Your task to perform on an android device: Find coffee shops on Maps Image 0: 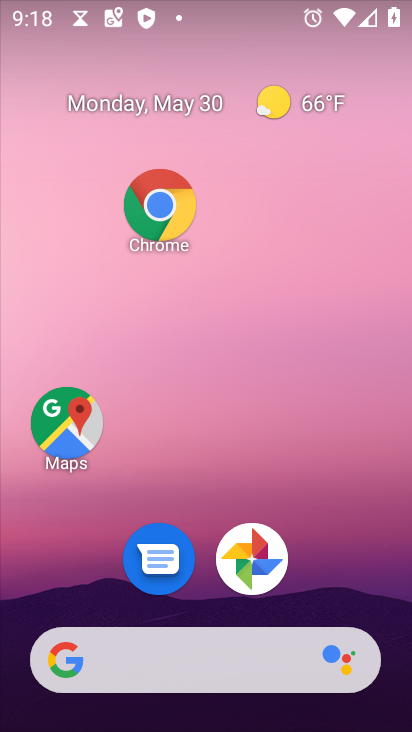
Step 0: drag from (269, 705) to (162, 51)
Your task to perform on an android device: Find coffee shops on Maps Image 1: 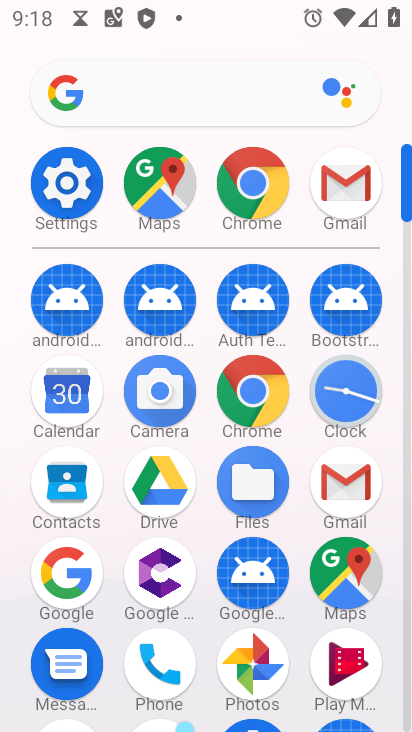
Step 1: click (340, 564)
Your task to perform on an android device: Find coffee shops on Maps Image 2: 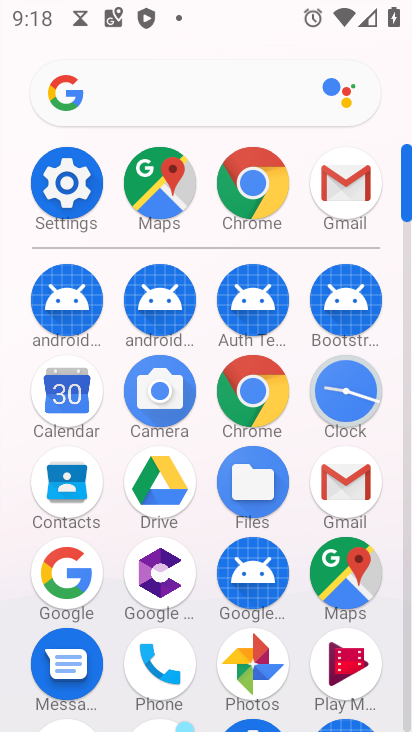
Step 2: click (341, 565)
Your task to perform on an android device: Find coffee shops on Maps Image 3: 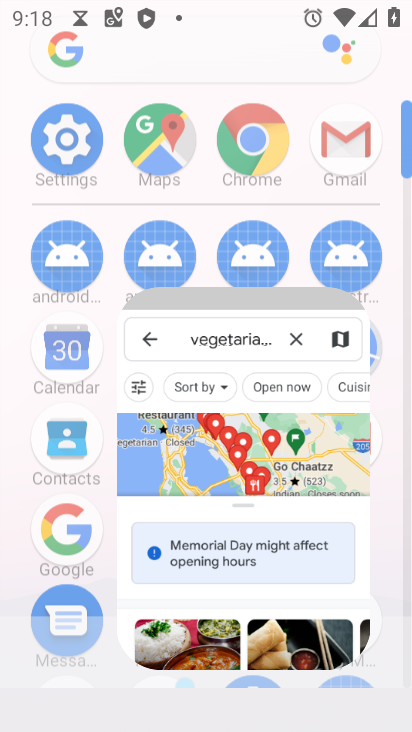
Step 3: click (341, 565)
Your task to perform on an android device: Find coffee shops on Maps Image 4: 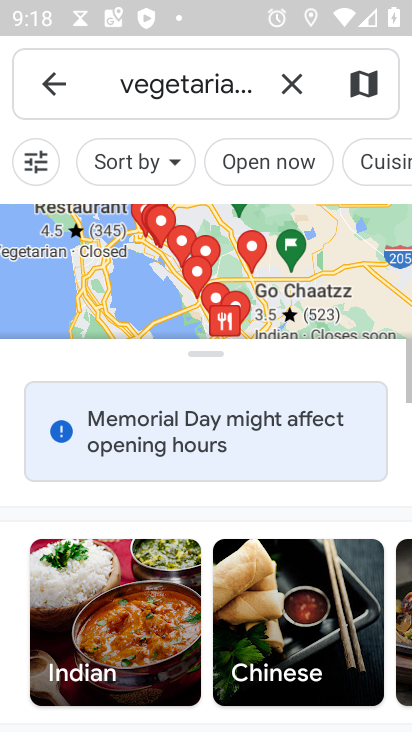
Step 4: click (293, 85)
Your task to perform on an android device: Find coffee shops on Maps Image 5: 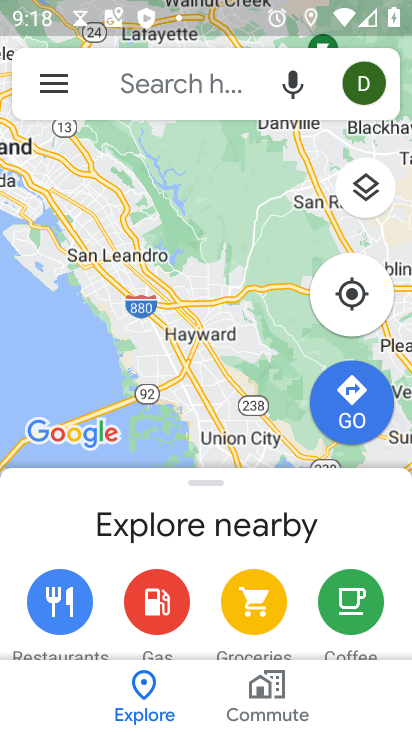
Step 5: click (122, 86)
Your task to perform on an android device: Find coffee shops on Maps Image 6: 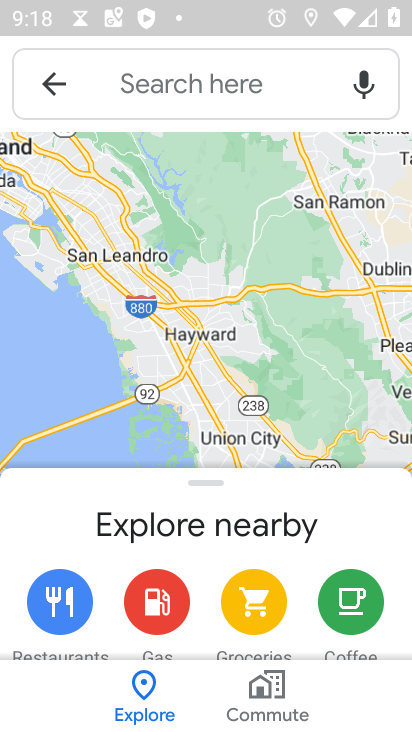
Step 6: click (122, 85)
Your task to perform on an android device: Find coffee shops on Maps Image 7: 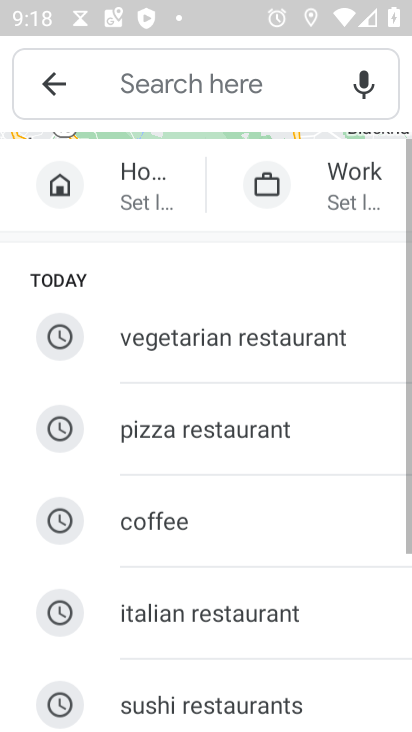
Step 7: click (122, 85)
Your task to perform on an android device: Find coffee shops on Maps Image 8: 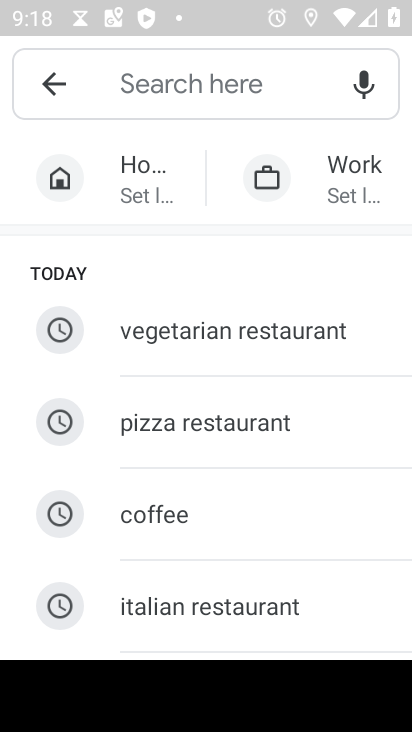
Step 8: click (161, 510)
Your task to perform on an android device: Find coffee shops on Maps Image 9: 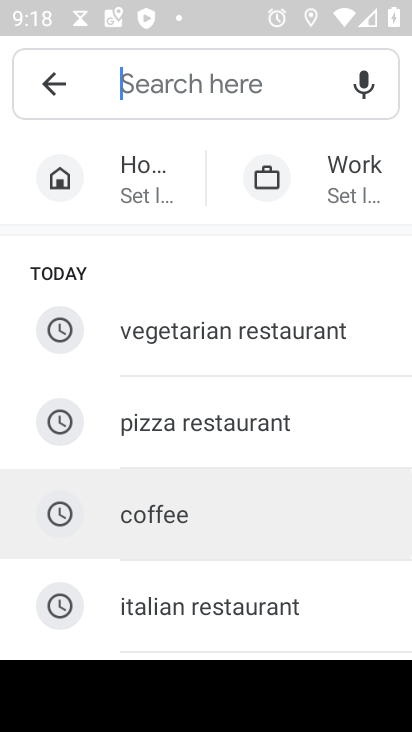
Step 9: click (156, 505)
Your task to perform on an android device: Find coffee shops on Maps Image 10: 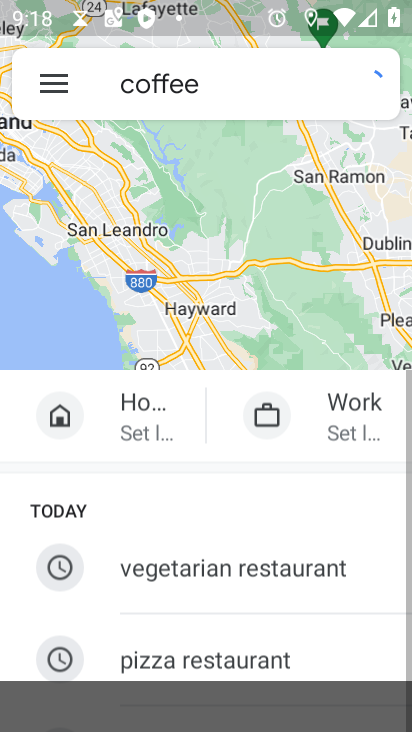
Step 10: click (156, 505)
Your task to perform on an android device: Find coffee shops on Maps Image 11: 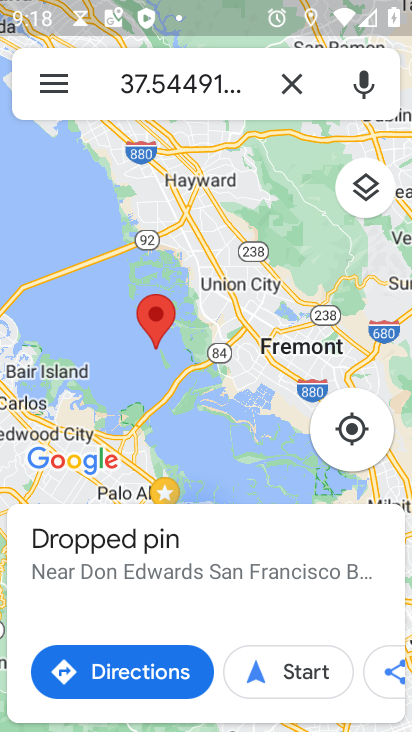
Step 11: click (289, 83)
Your task to perform on an android device: Find coffee shops on Maps Image 12: 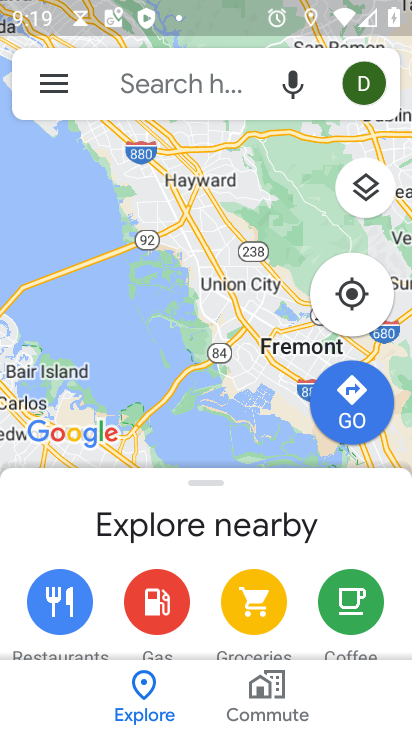
Step 12: click (289, 83)
Your task to perform on an android device: Find coffee shops on Maps Image 13: 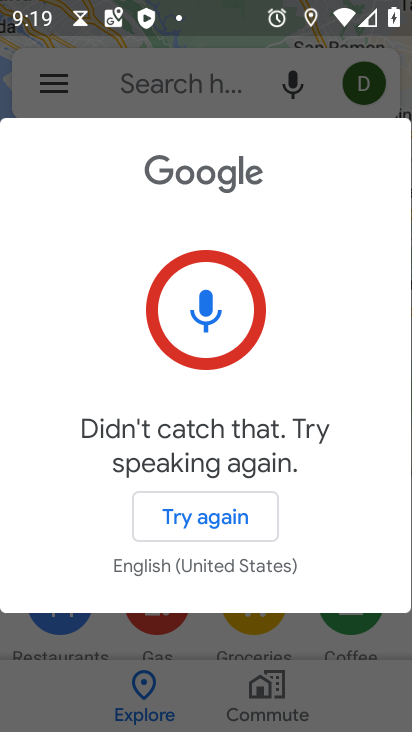
Step 13: click (248, 99)
Your task to perform on an android device: Find coffee shops on Maps Image 14: 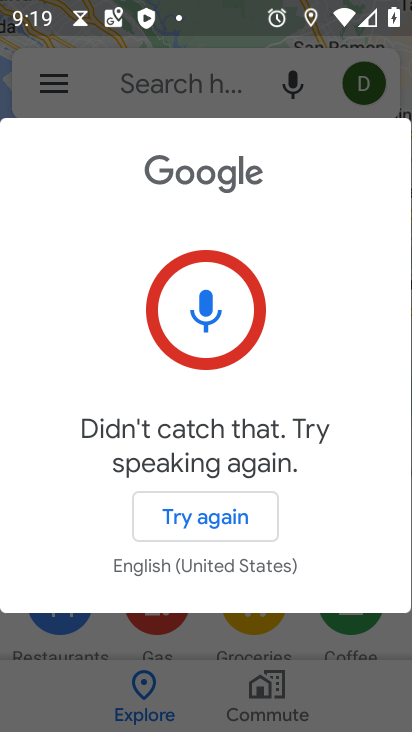
Step 14: click (248, 99)
Your task to perform on an android device: Find coffee shops on Maps Image 15: 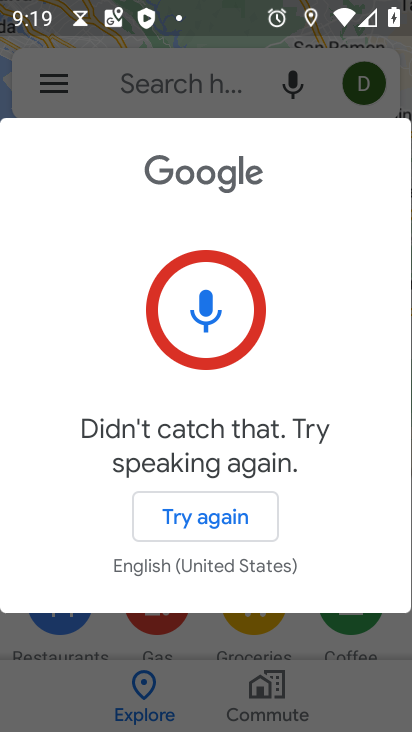
Step 15: click (307, 621)
Your task to perform on an android device: Find coffee shops on Maps Image 16: 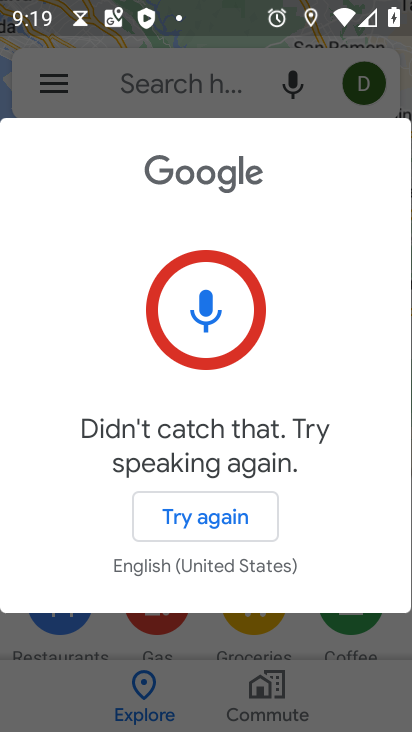
Step 16: click (306, 626)
Your task to perform on an android device: Find coffee shops on Maps Image 17: 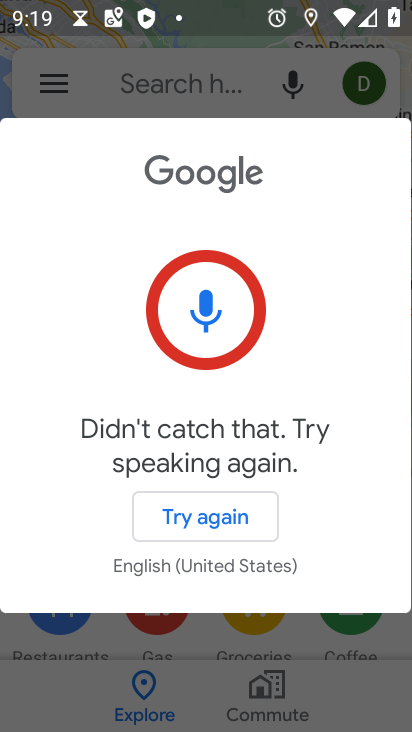
Step 17: click (233, 72)
Your task to perform on an android device: Find coffee shops on Maps Image 18: 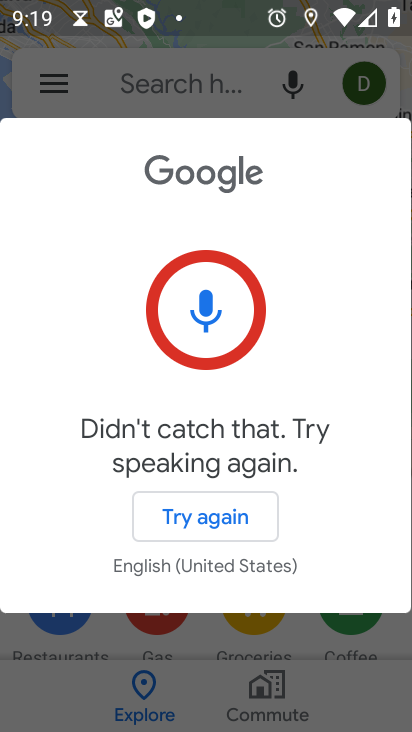
Step 18: click (241, 73)
Your task to perform on an android device: Find coffee shops on Maps Image 19: 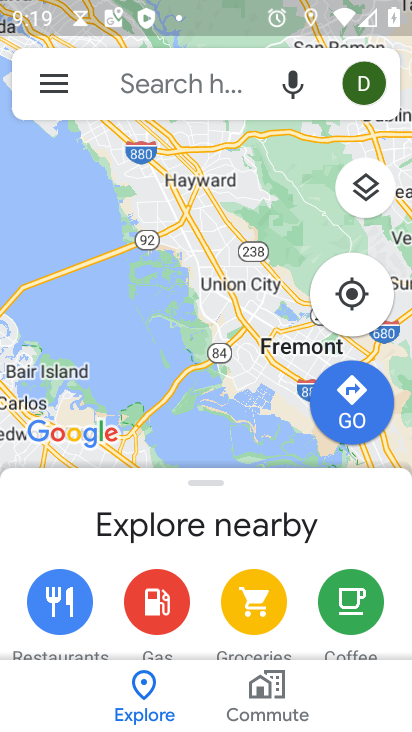
Step 19: click (241, 73)
Your task to perform on an android device: Find coffee shops on Maps Image 20: 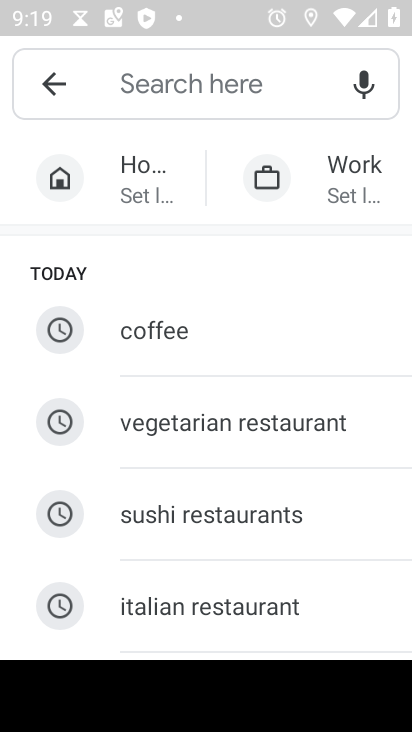
Step 20: click (157, 328)
Your task to perform on an android device: Find coffee shops on Maps Image 21: 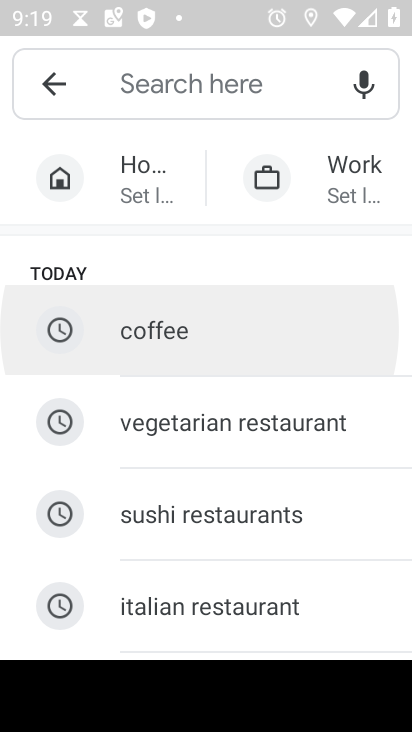
Step 21: click (157, 328)
Your task to perform on an android device: Find coffee shops on Maps Image 22: 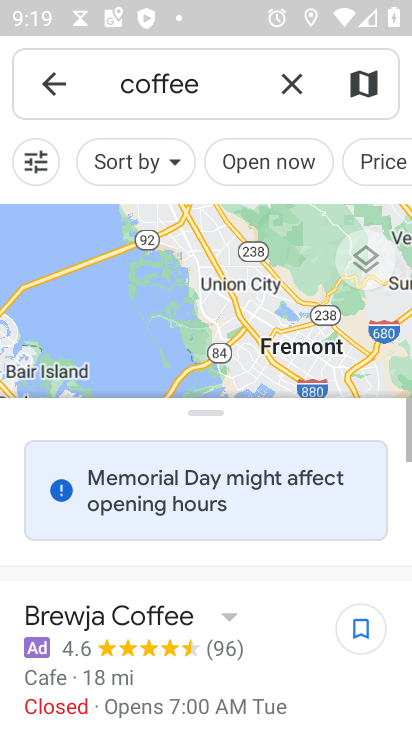
Step 22: task complete